Your task to perform on an android device: Open Google Image 0: 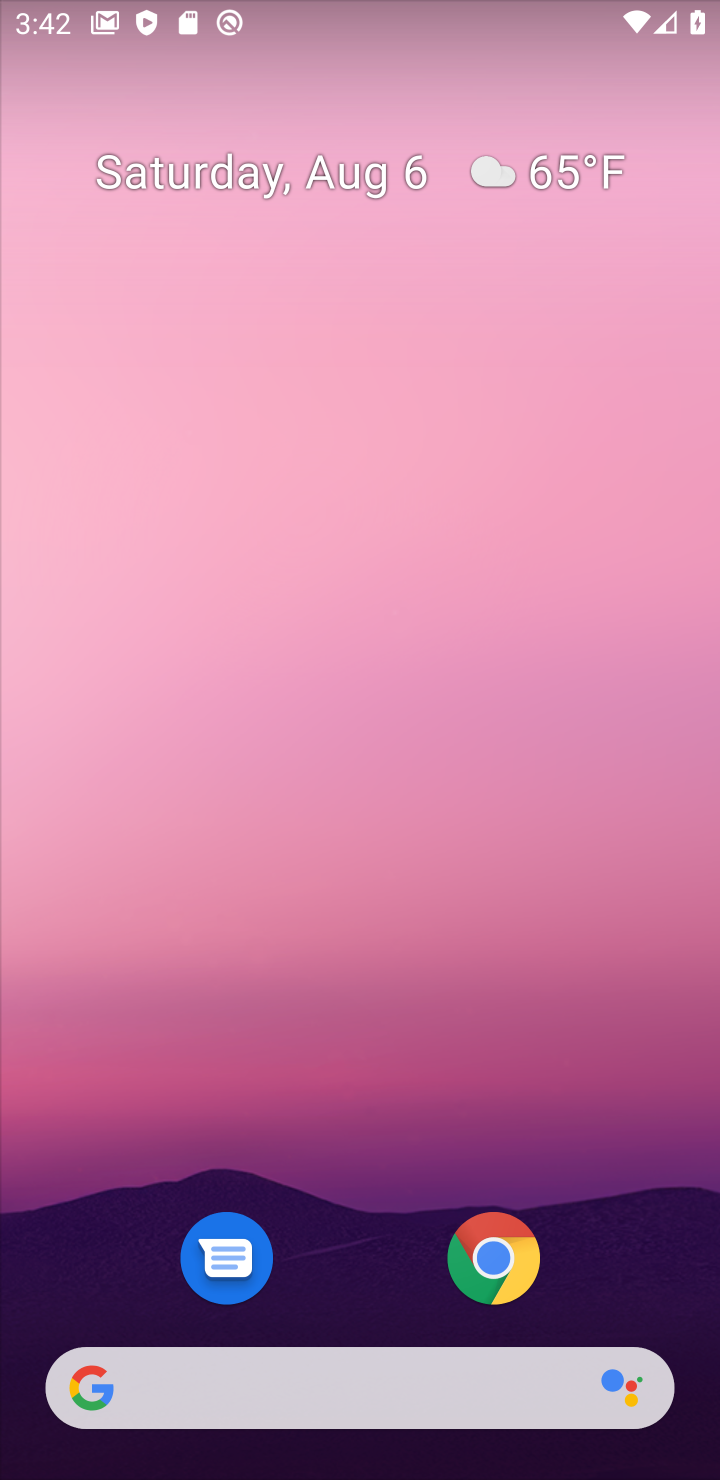
Step 0: click (105, 1373)
Your task to perform on an android device: Open Google Image 1: 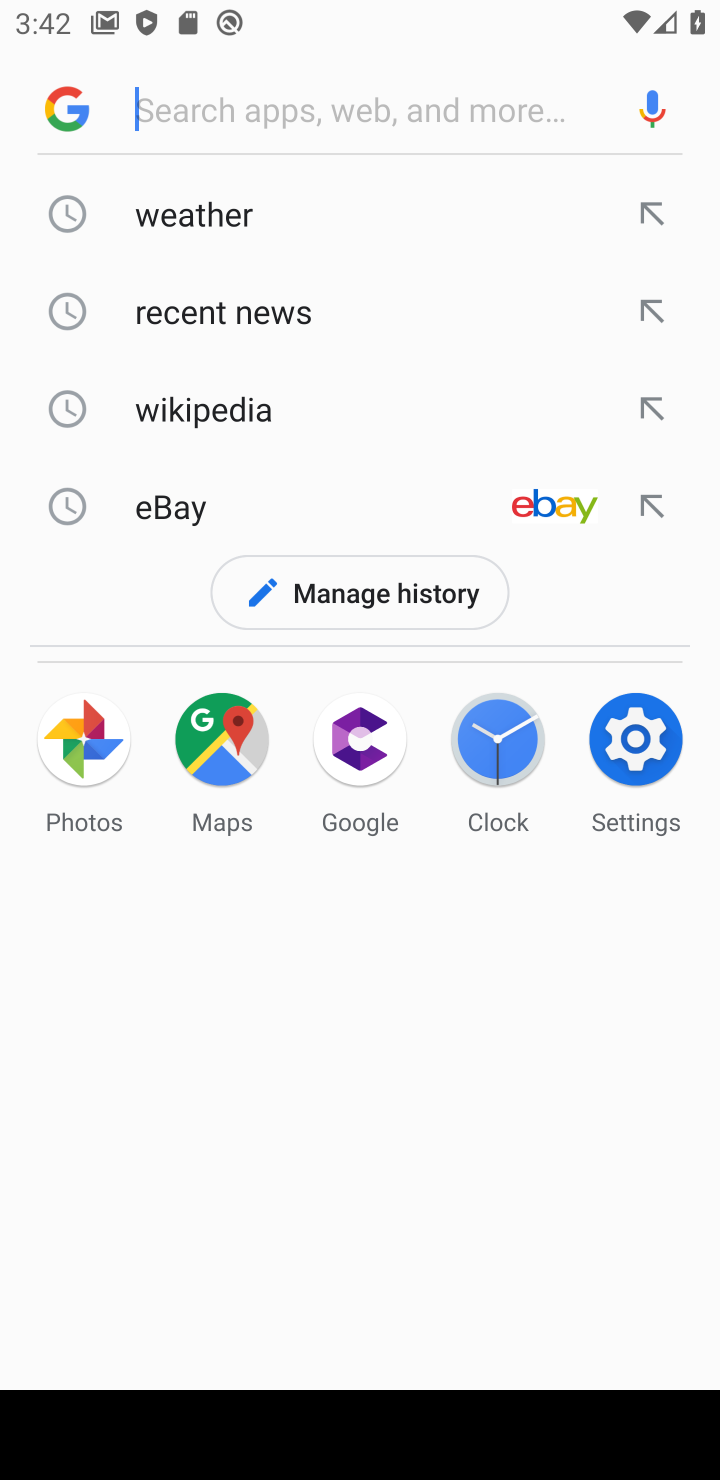
Step 1: click (57, 118)
Your task to perform on an android device: Open Google Image 2: 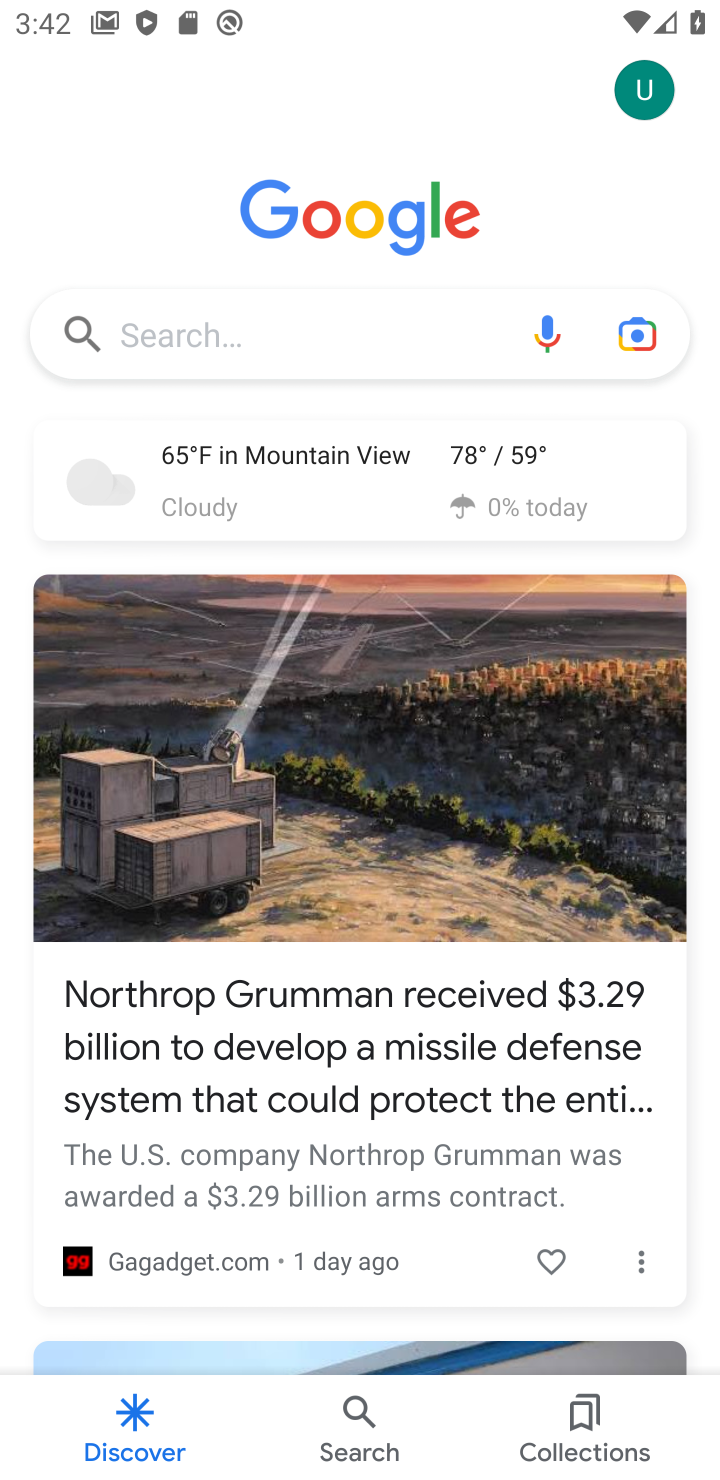
Step 2: task complete